Your task to perform on an android device: Show the shopping cart on ebay.com. Add "acer predator" to the cart on ebay.com, then select checkout. Image 0: 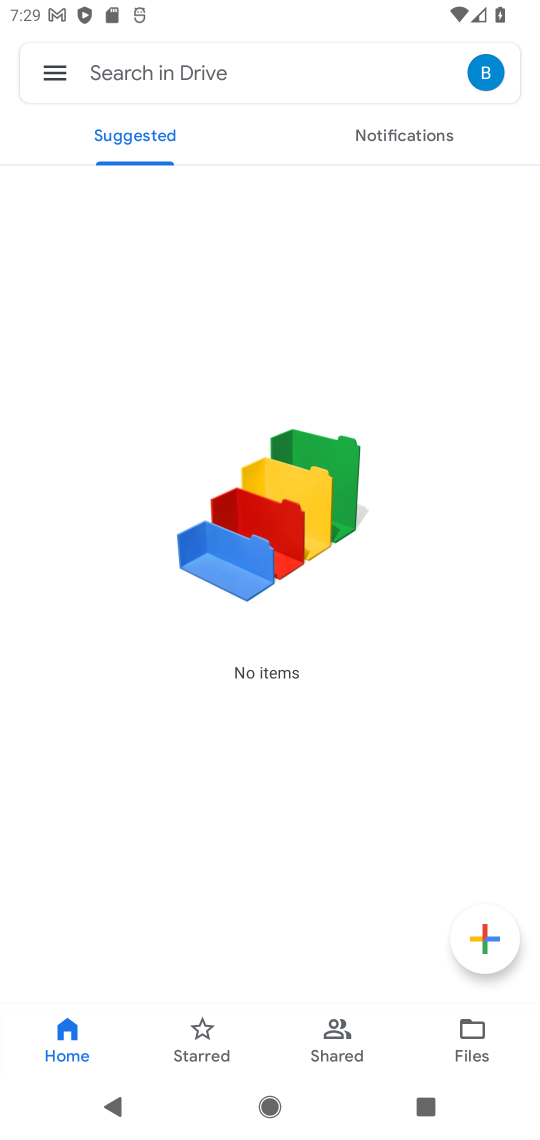
Step 0: press home button
Your task to perform on an android device: Show the shopping cart on ebay.com. Add "acer predator" to the cart on ebay.com, then select checkout. Image 1: 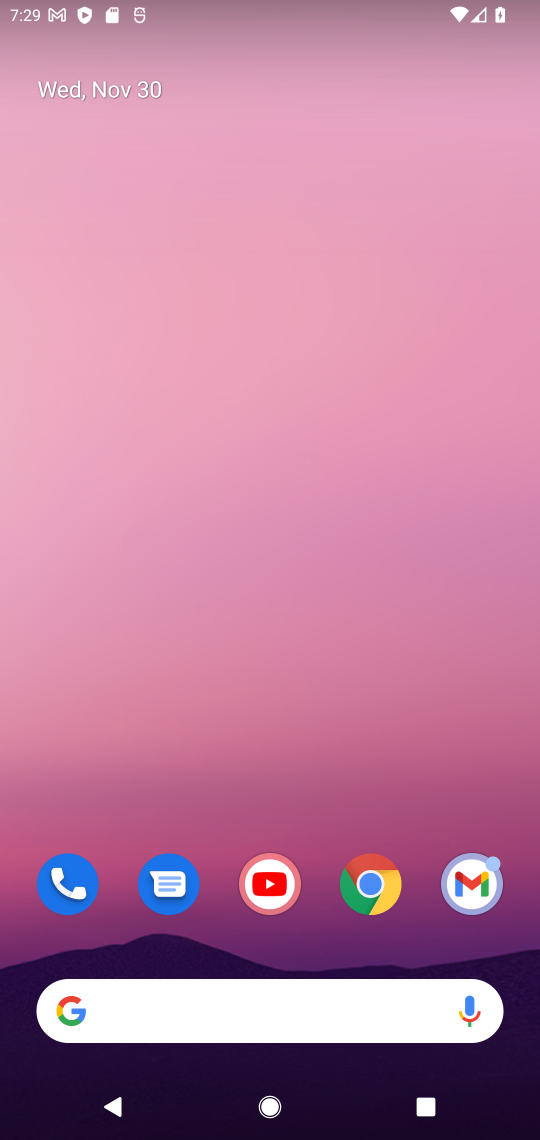
Step 1: click (370, 894)
Your task to perform on an android device: Show the shopping cart on ebay.com. Add "acer predator" to the cart on ebay.com, then select checkout. Image 2: 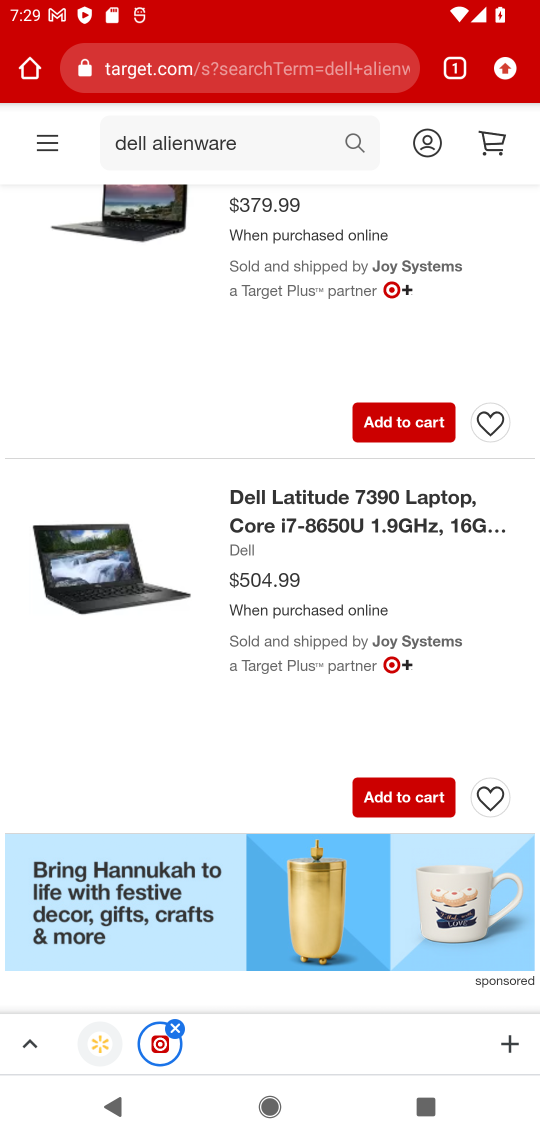
Step 2: click (210, 60)
Your task to perform on an android device: Show the shopping cart on ebay.com. Add "acer predator" to the cart on ebay.com, then select checkout. Image 3: 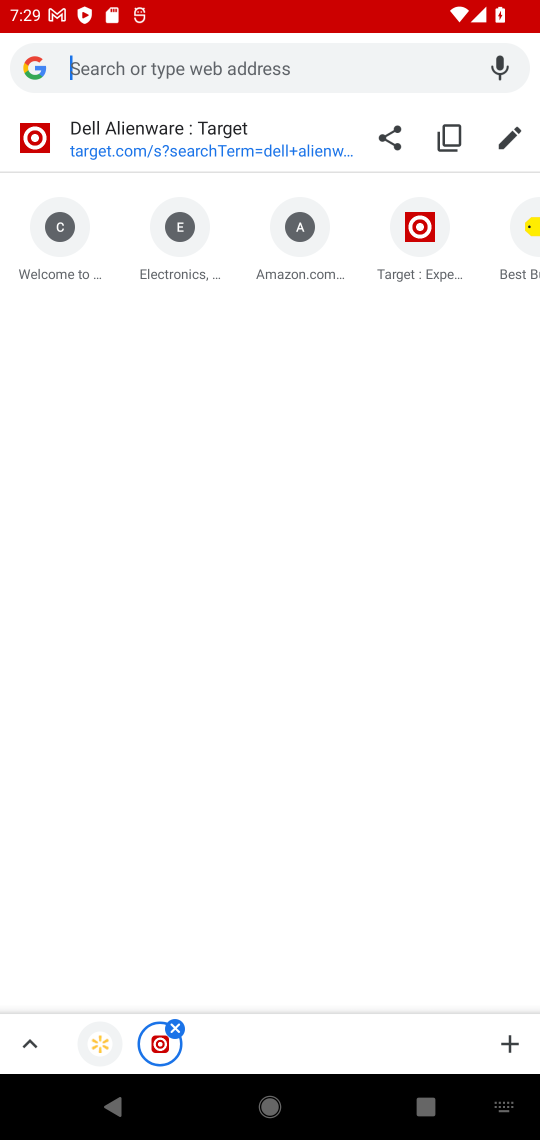
Step 3: type "ebay.com"
Your task to perform on an android device: Show the shopping cart on ebay.com. Add "acer predator" to the cart on ebay.com, then select checkout. Image 4: 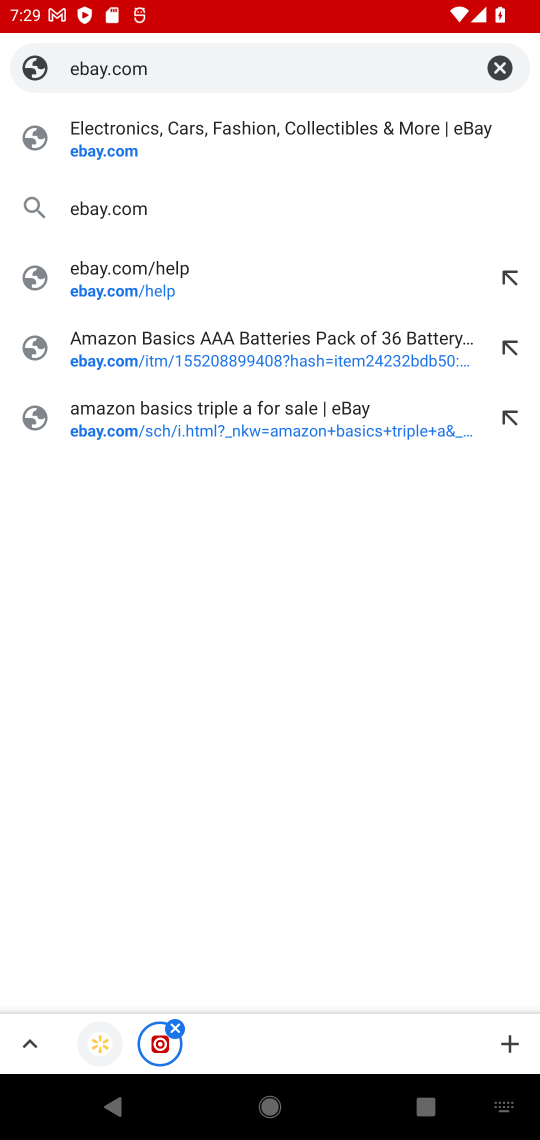
Step 4: click (112, 156)
Your task to perform on an android device: Show the shopping cart on ebay.com. Add "acer predator" to the cart on ebay.com, then select checkout. Image 5: 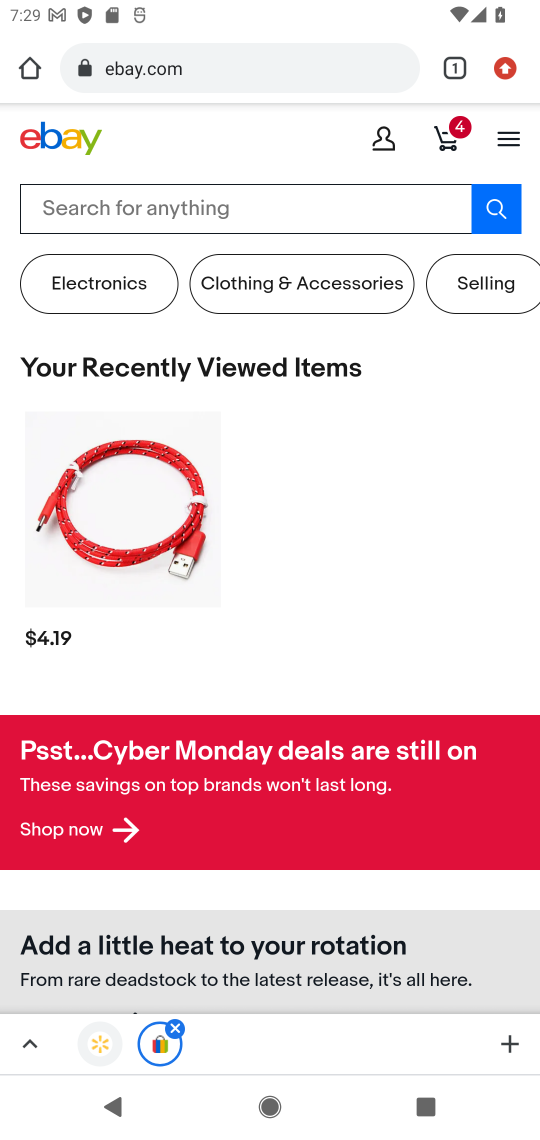
Step 5: click (452, 133)
Your task to perform on an android device: Show the shopping cart on ebay.com. Add "acer predator" to the cart on ebay.com, then select checkout. Image 6: 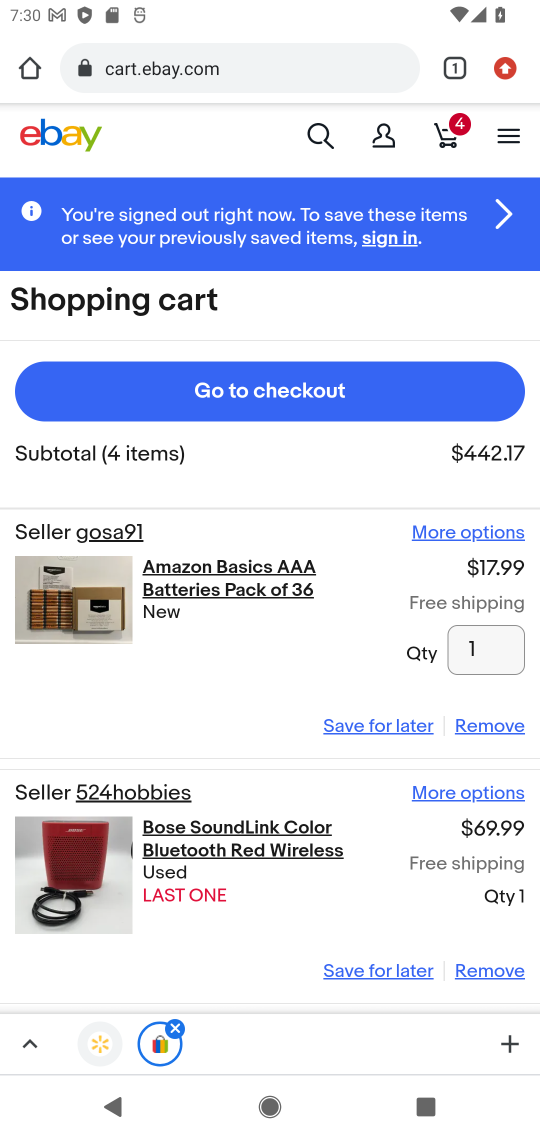
Step 6: click (323, 130)
Your task to perform on an android device: Show the shopping cart on ebay.com. Add "acer predator" to the cart on ebay.com, then select checkout. Image 7: 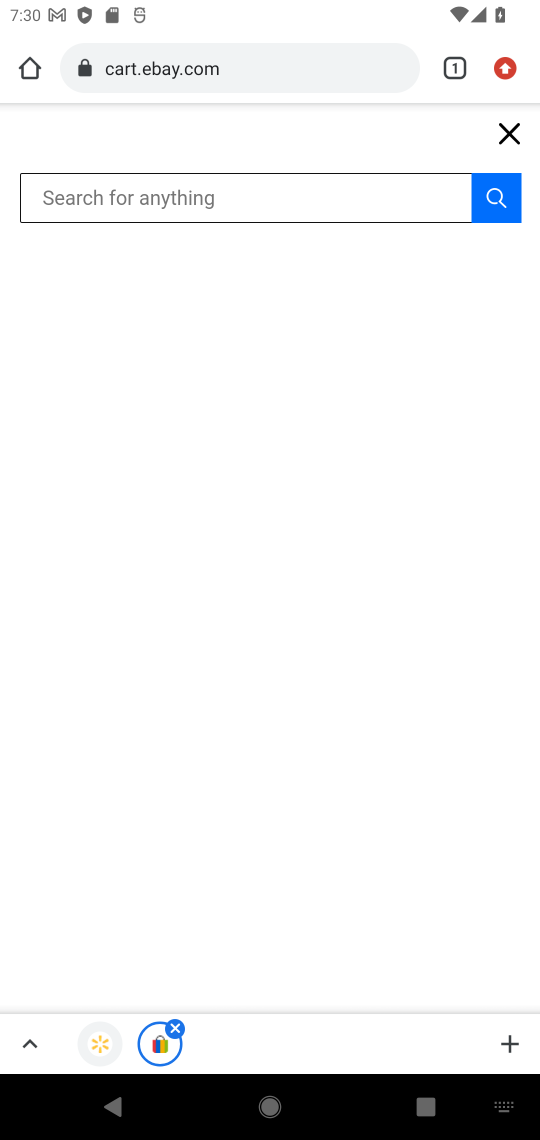
Step 7: type "acer predator"
Your task to perform on an android device: Show the shopping cart on ebay.com. Add "acer predator" to the cart on ebay.com, then select checkout. Image 8: 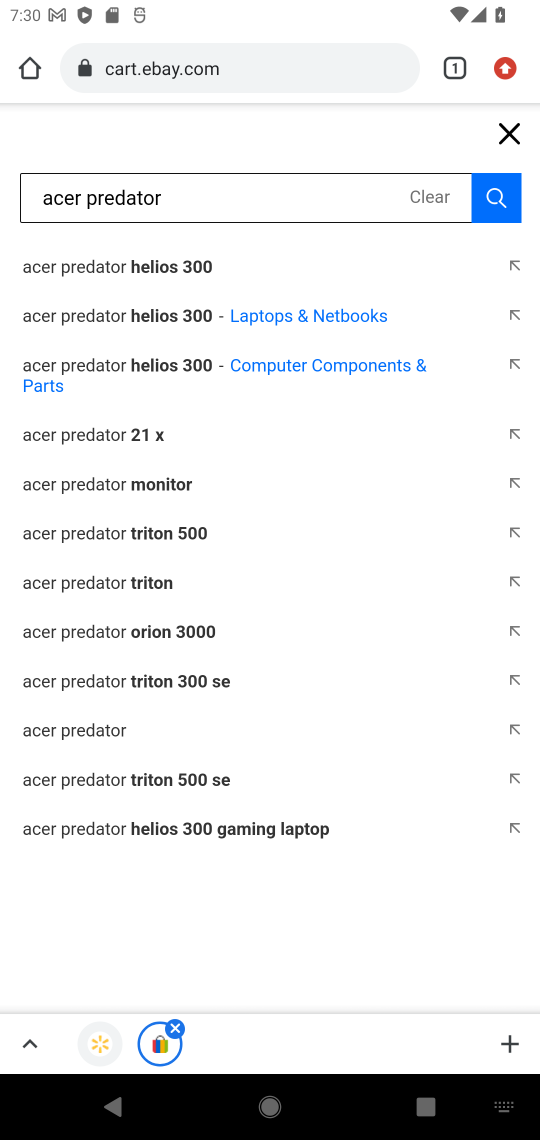
Step 8: click (98, 734)
Your task to perform on an android device: Show the shopping cart on ebay.com. Add "acer predator" to the cart on ebay.com, then select checkout. Image 9: 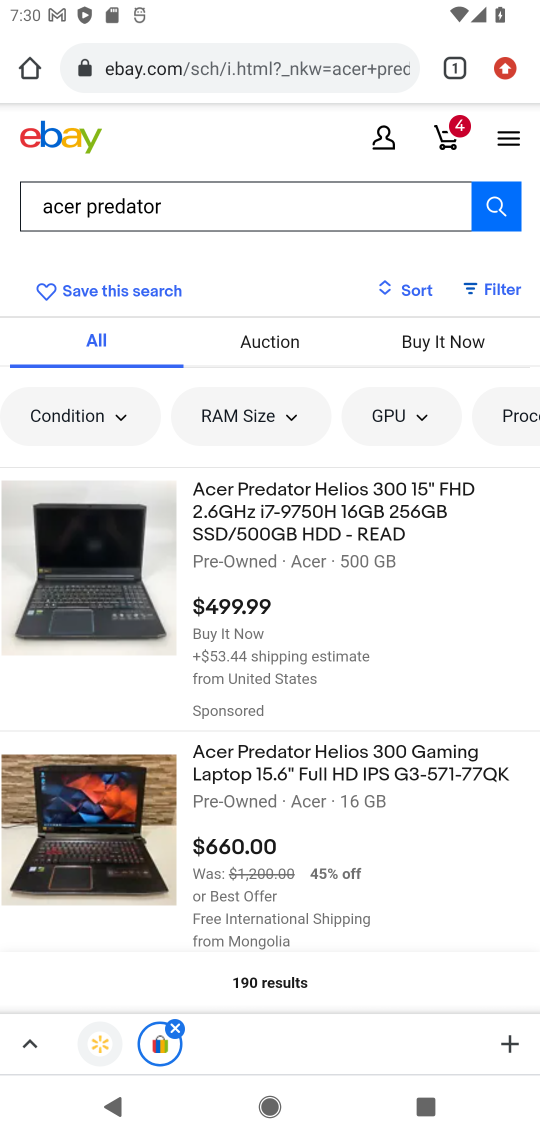
Step 9: click (275, 518)
Your task to perform on an android device: Show the shopping cart on ebay.com. Add "acer predator" to the cart on ebay.com, then select checkout. Image 10: 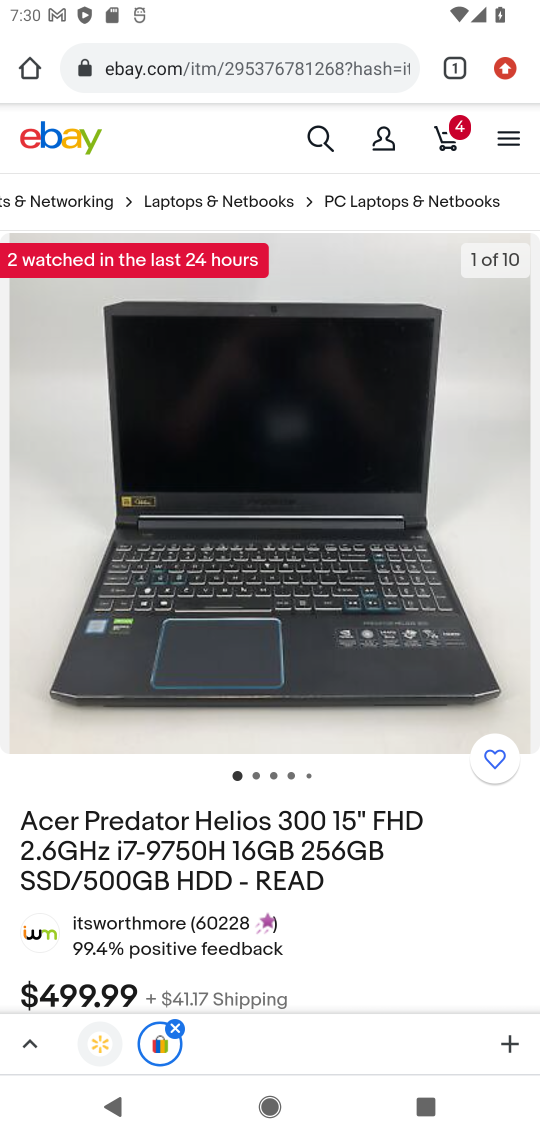
Step 10: drag from (403, 879) to (403, 545)
Your task to perform on an android device: Show the shopping cart on ebay.com. Add "acer predator" to the cart on ebay.com, then select checkout. Image 11: 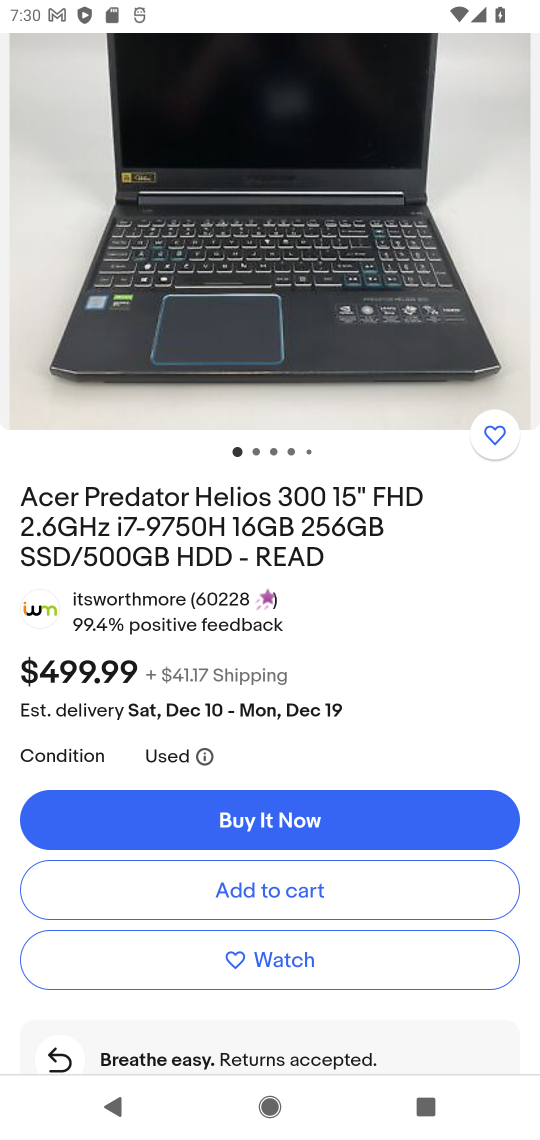
Step 11: click (237, 885)
Your task to perform on an android device: Show the shopping cart on ebay.com. Add "acer predator" to the cart on ebay.com, then select checkout. Image 12: 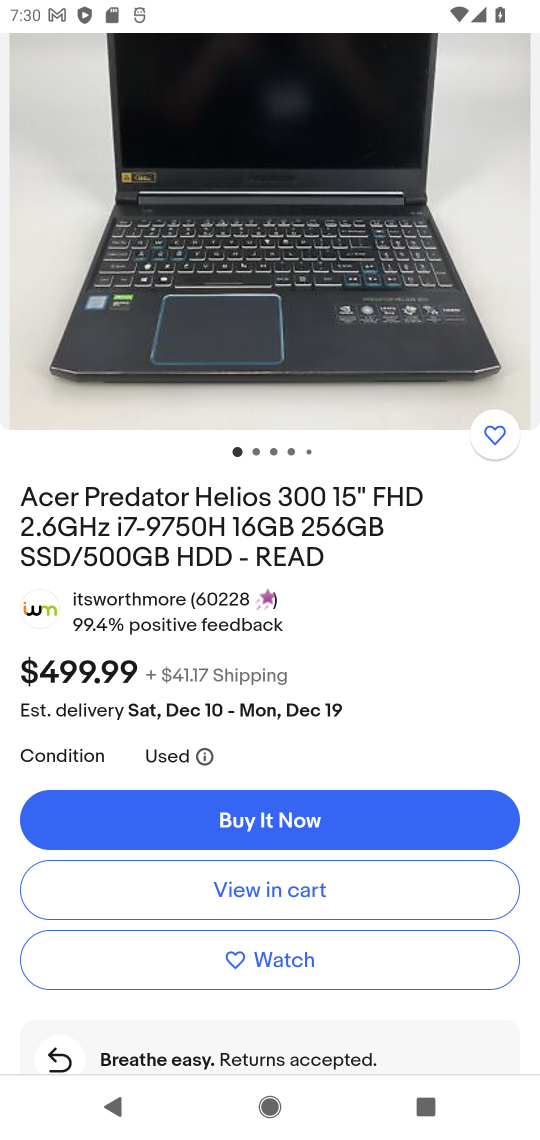
Step 12: click (237, 885)
Your task to perform on an android device: Show the shopping cart on ebay.com. Add "acer predator" to the cart on ebay.com, then select checkout. Image 13: 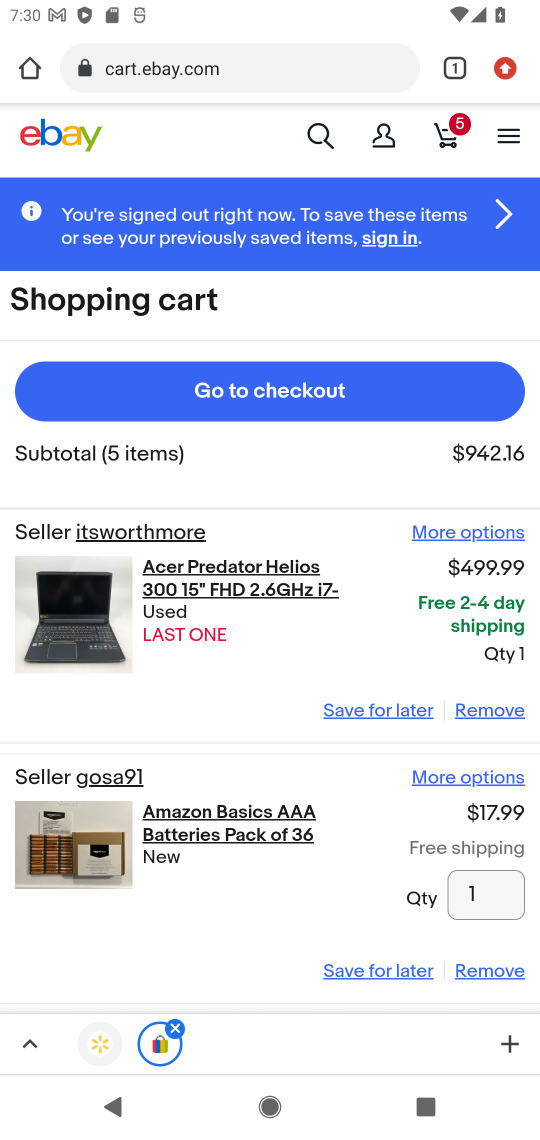
Step 13: click (272, 396)
Your task to perform on an android device: Show the shopping cart on ebay.com. Add "acer predator" to the cart on ebay.com, then select checkout. Image 14: 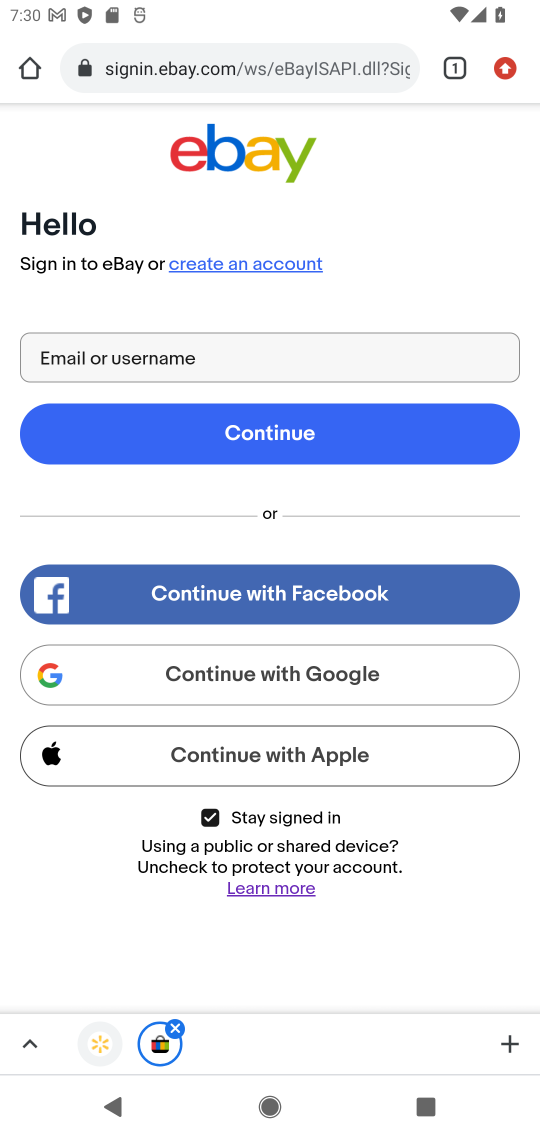
Step 14: task complete